Your task to perform on an android device: turn notification dots on Image 0: 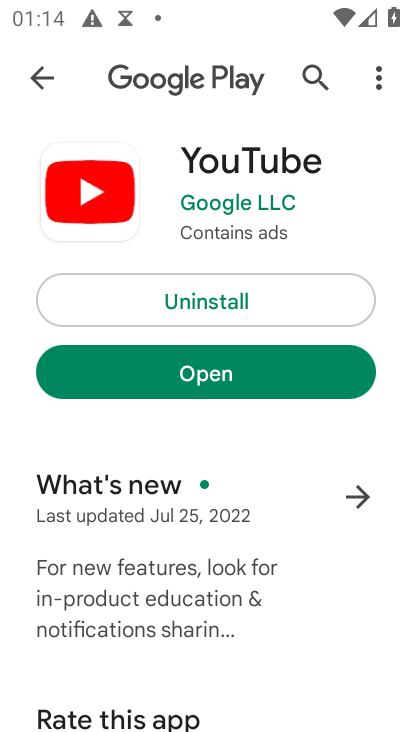
Step 0: press home button
Your task to perform on an android device: turn notification dots on Image 1: 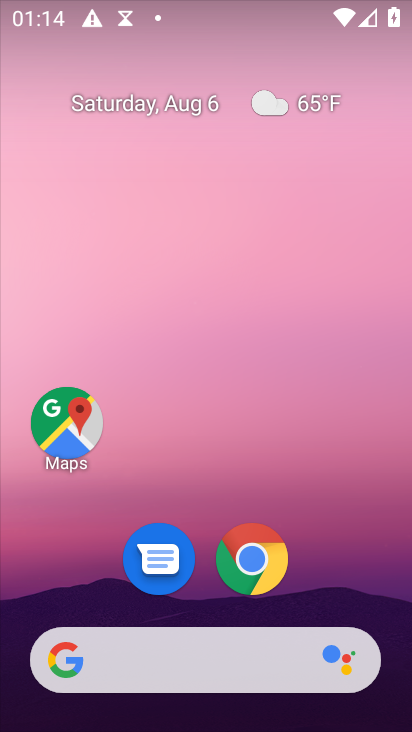
Step 1: drag from (384, 600) to (320, 123)
Your task to perform on an android device: turn notification dots on Image 2: 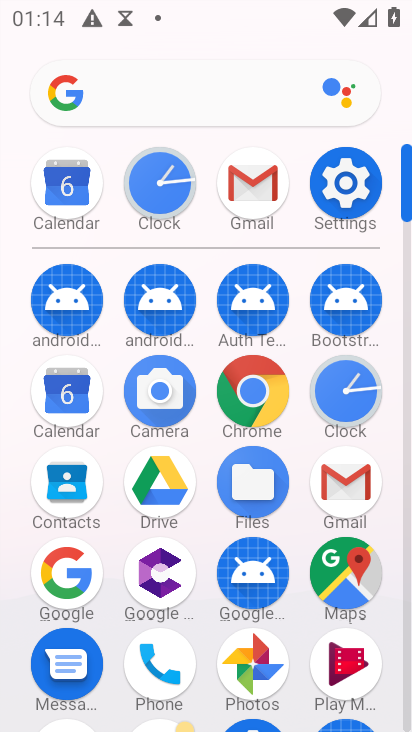
Step 2: click (359, 197)
Your task to perform on an android device: turn notification dots on Image 3: 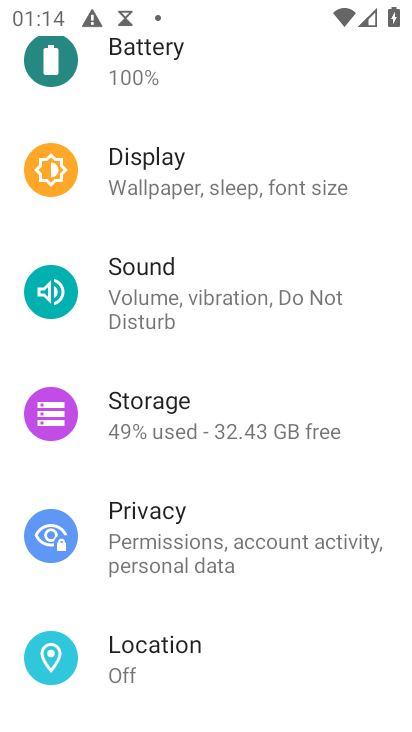
Step 3: drag from (279, 223) to (350, 707)
Your task to perform on an android device: turn notification dots on Image 4: 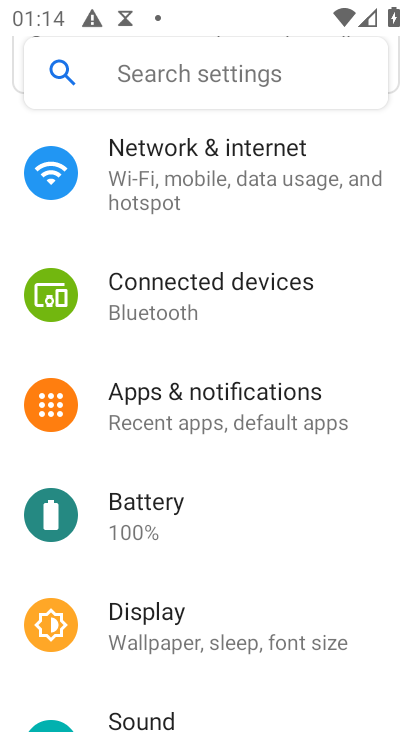
Step 4: click (262, 398)
Your task to perform on an android device: turn notification dots on Image 5: 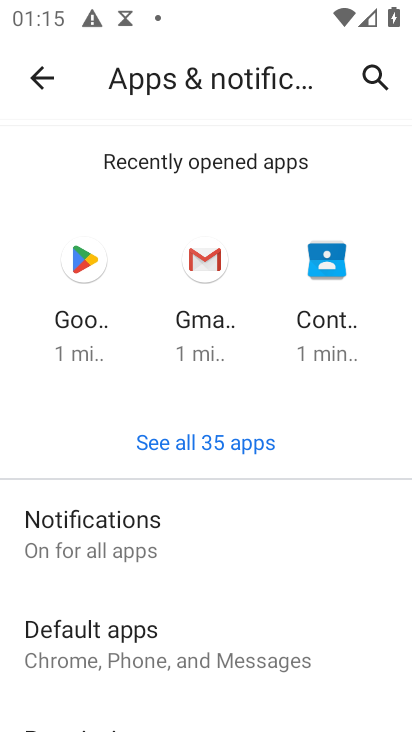
Step 5: click (246, 537)
Your task to perform on an android device: turn notification dots on Image 6: 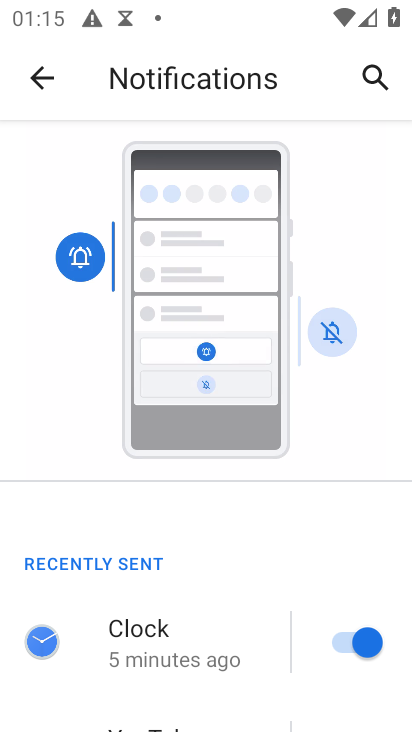
Step 6: drag from (273, 671) to (267, 227)
Your task to perform on an android device: turn notification dots on Image 7: 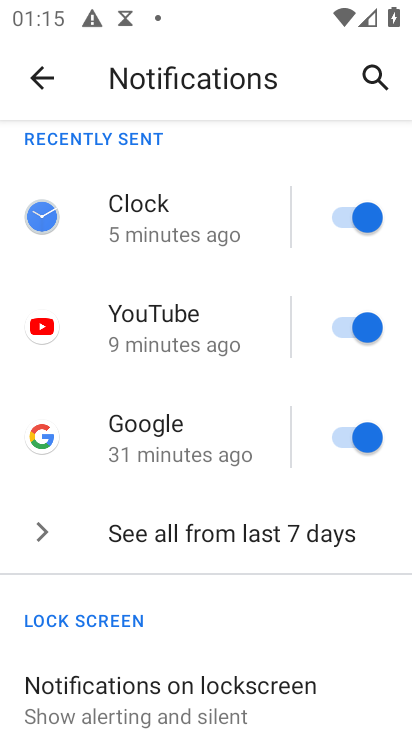
Step 7: drag from (340, 663) to (258, 184)
Your task to perform on an android device: turn notification dots on Image 8: 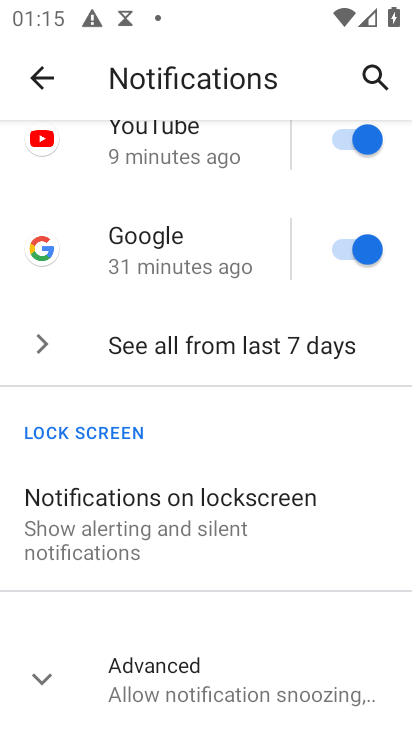
Step 8: click (240, 685)
Your task to perform on an android device: turn notification dots on Image 9: 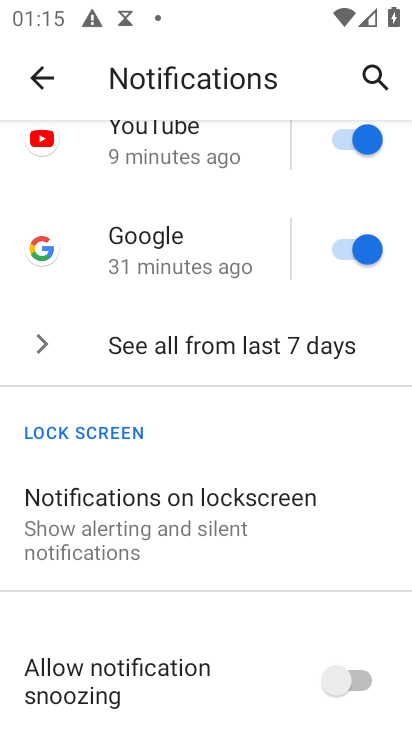
Step 9: task complete